Your task to perform on an android device: toggle sleep mode Image 0: 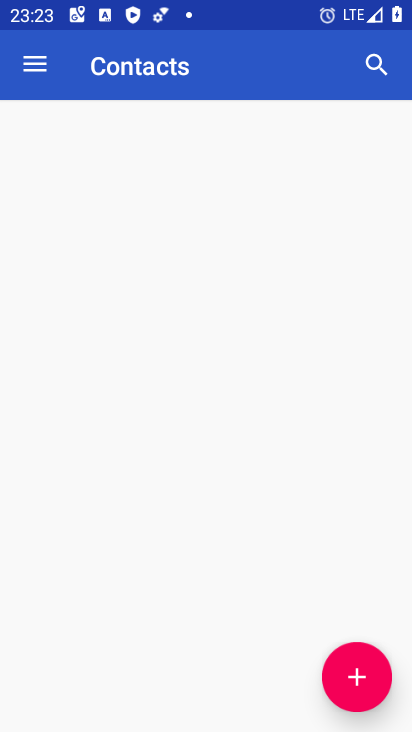
Step 0: click (247, 279)
Your task to perform on an android device: toggle sleep mode Image 1: 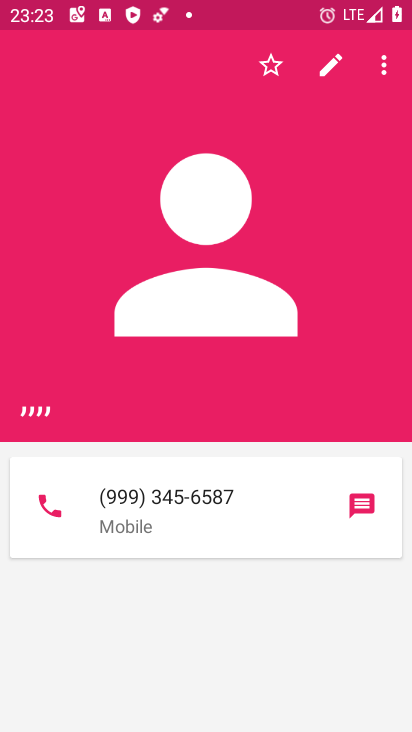
Step 1: press home button
Your task to perform on an android device: toggle sleep mode Image 2: 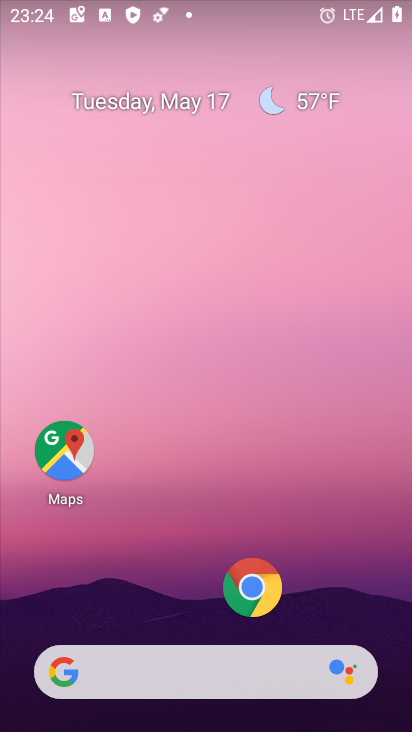
Step 2: drag from (51, 469) to (192, 299)
Your task to perform on an android device: toggle sleep mode Image 3: 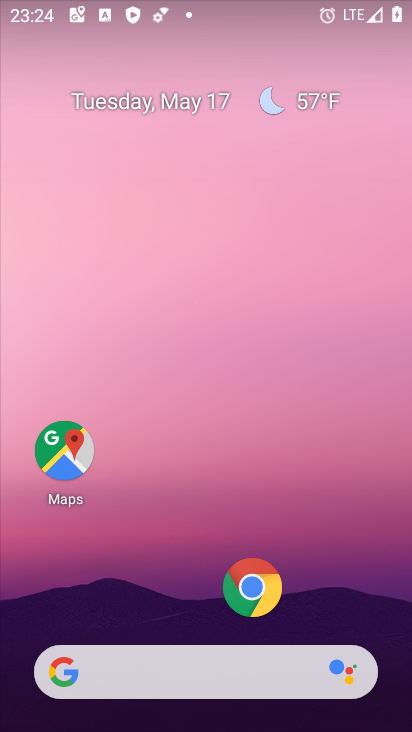
Step 3: drag from (100, 529) to (323, 97)
Your task to perform on an android device: toggle sleep mode Image 4: 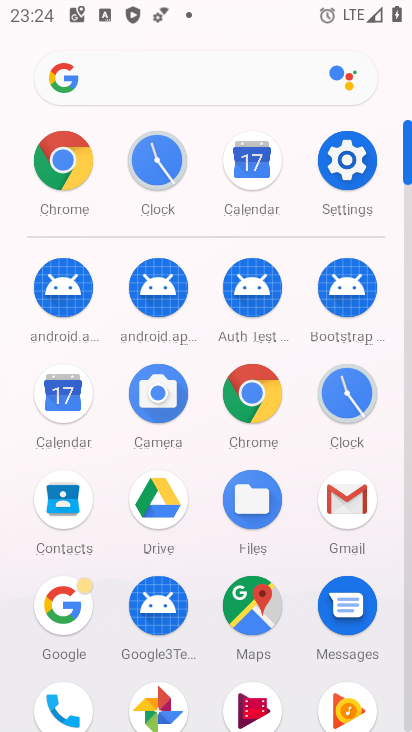
Step 4: click (350, 162)
Your task to perform on an android device: toggle sleep mode Image 5: 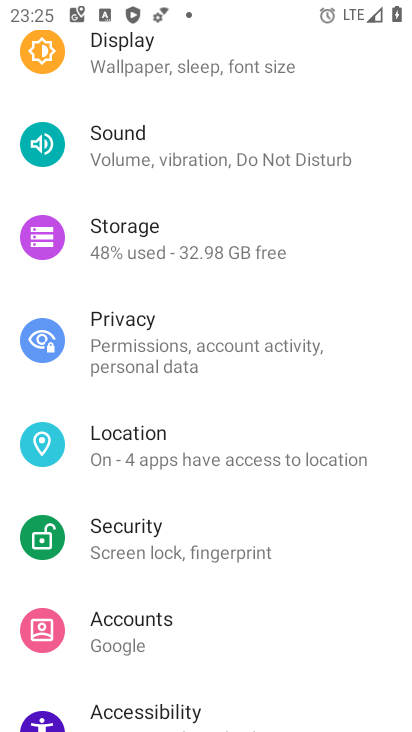
Step 5: click (188, 76)
Your task to perform on an android device: toggle sleep mode Image 6: 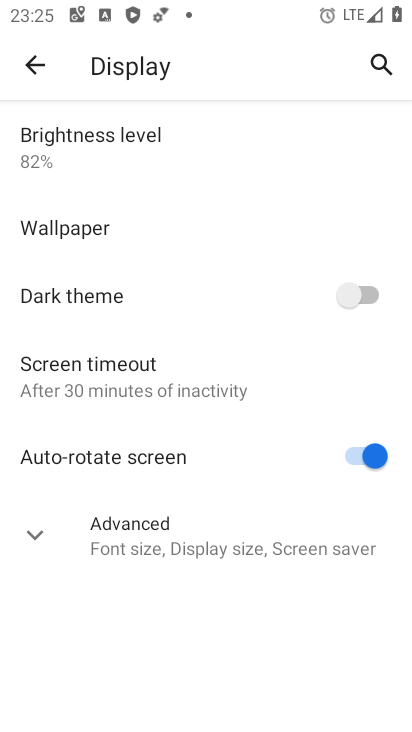
Step 6: task complete